Your task to perform on an android device: move a message to another label in the gmail app Image 0: 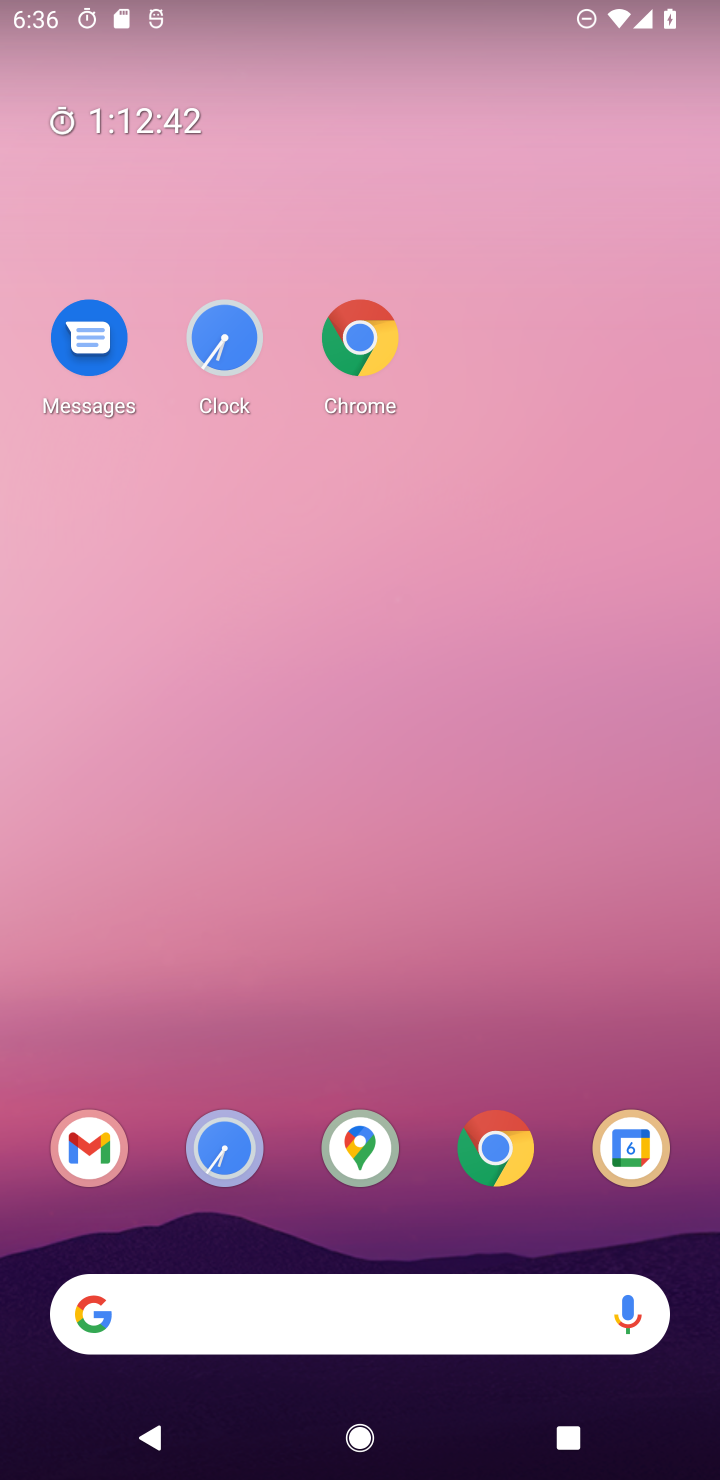
Step 0: drag from (391, 1034) to (368, 176)
Your task to perform on an android device: move a message to another label in the gmail app Image 1: 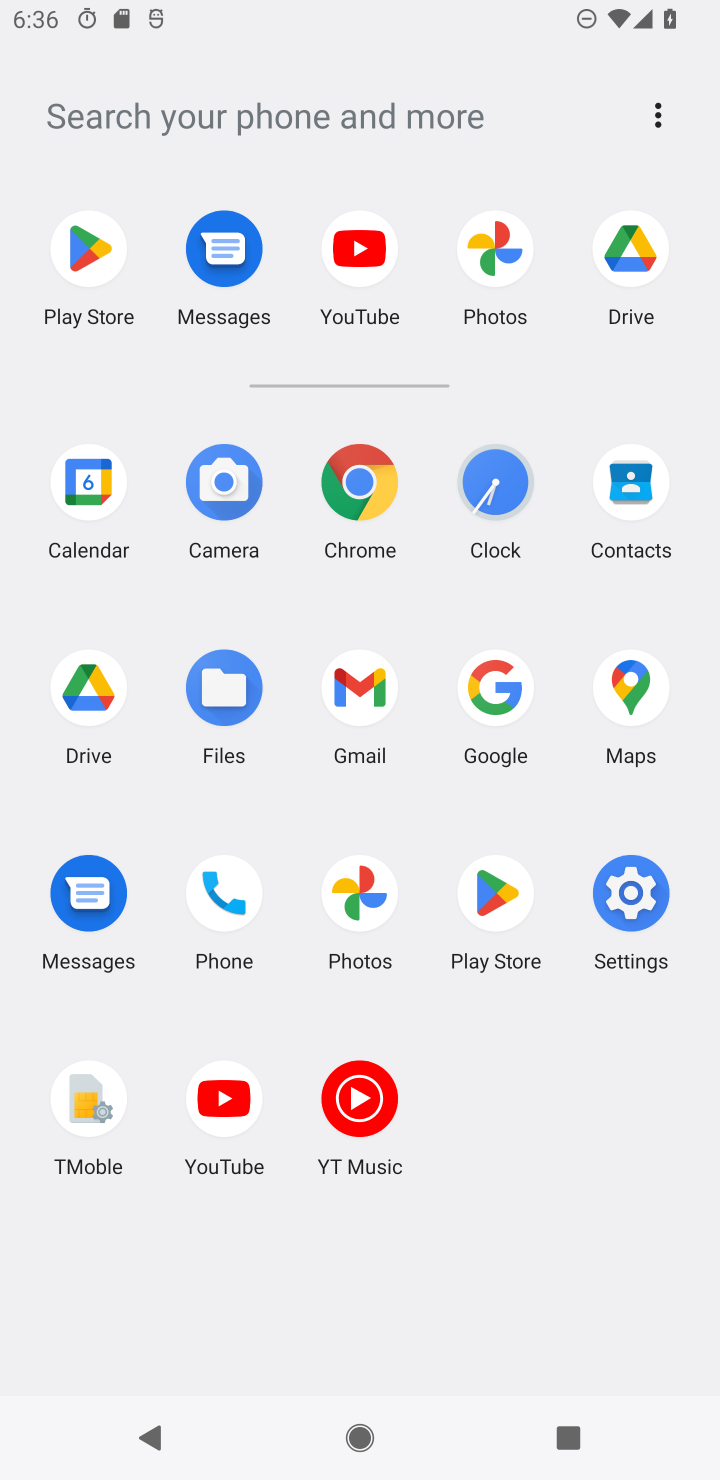
Step 1: click (354, 687)
Your task to perform on an android device: move a message to another label in the gmail app Image 2: 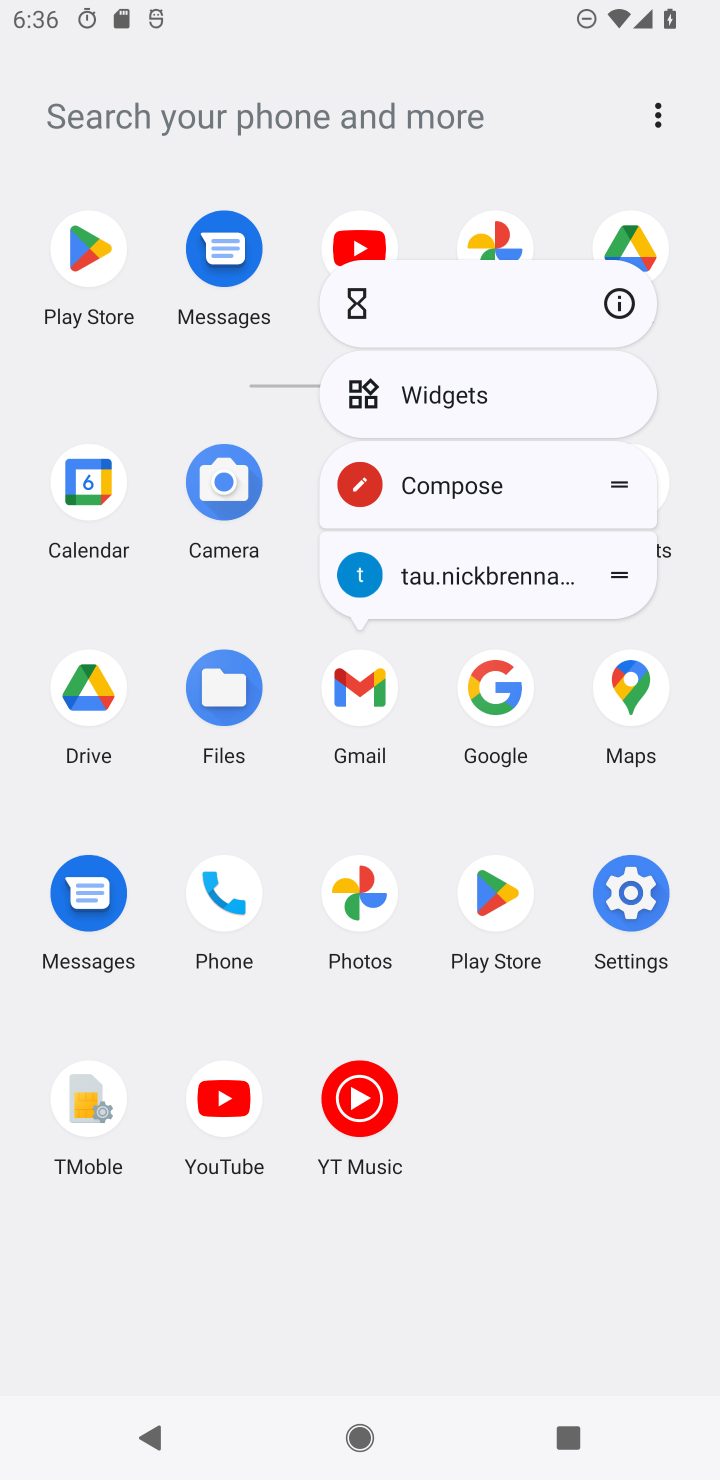
Step 2: click (632, 298)
Your task to perform on an android device: move a message to another label in the gmail app Image 3: 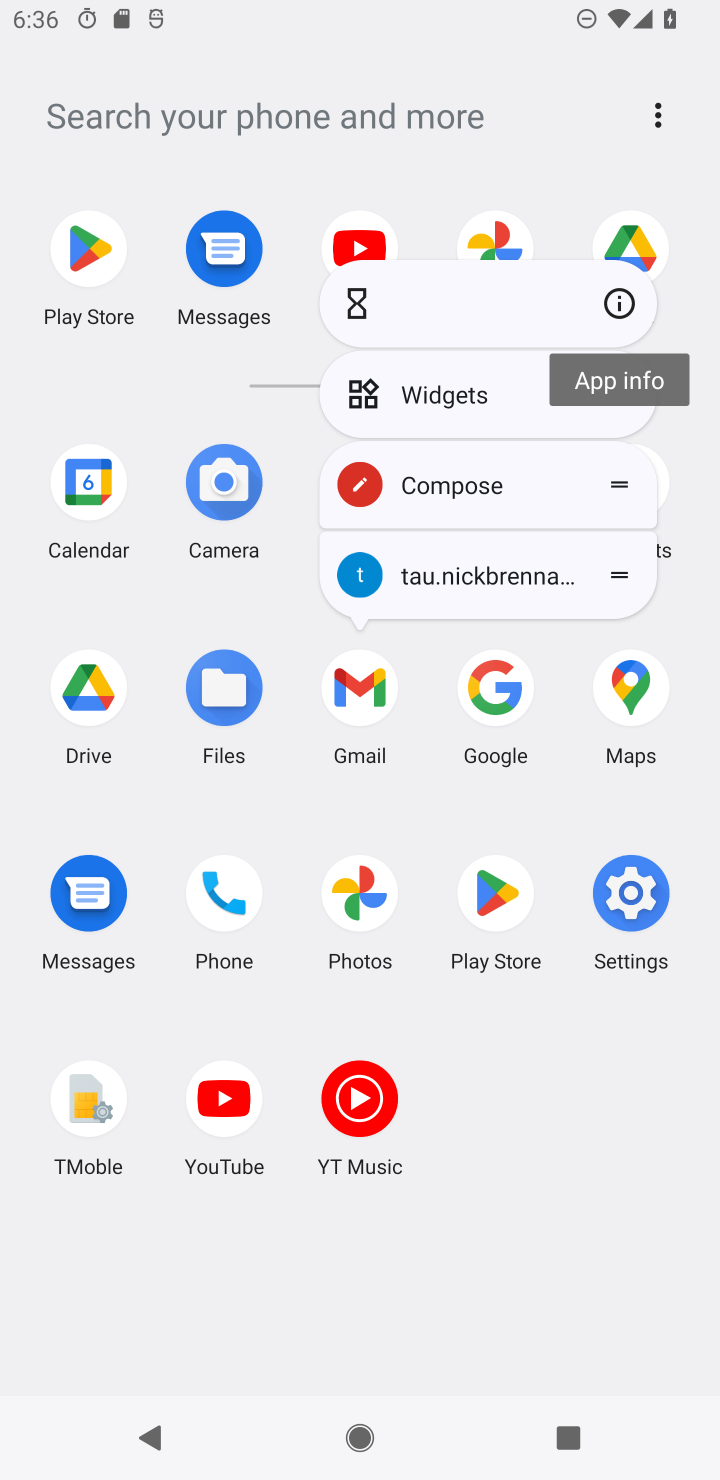
Step 3: click (623, 302)
Your task to perform on an android device: move a message to another label in the gmail app Image 4: 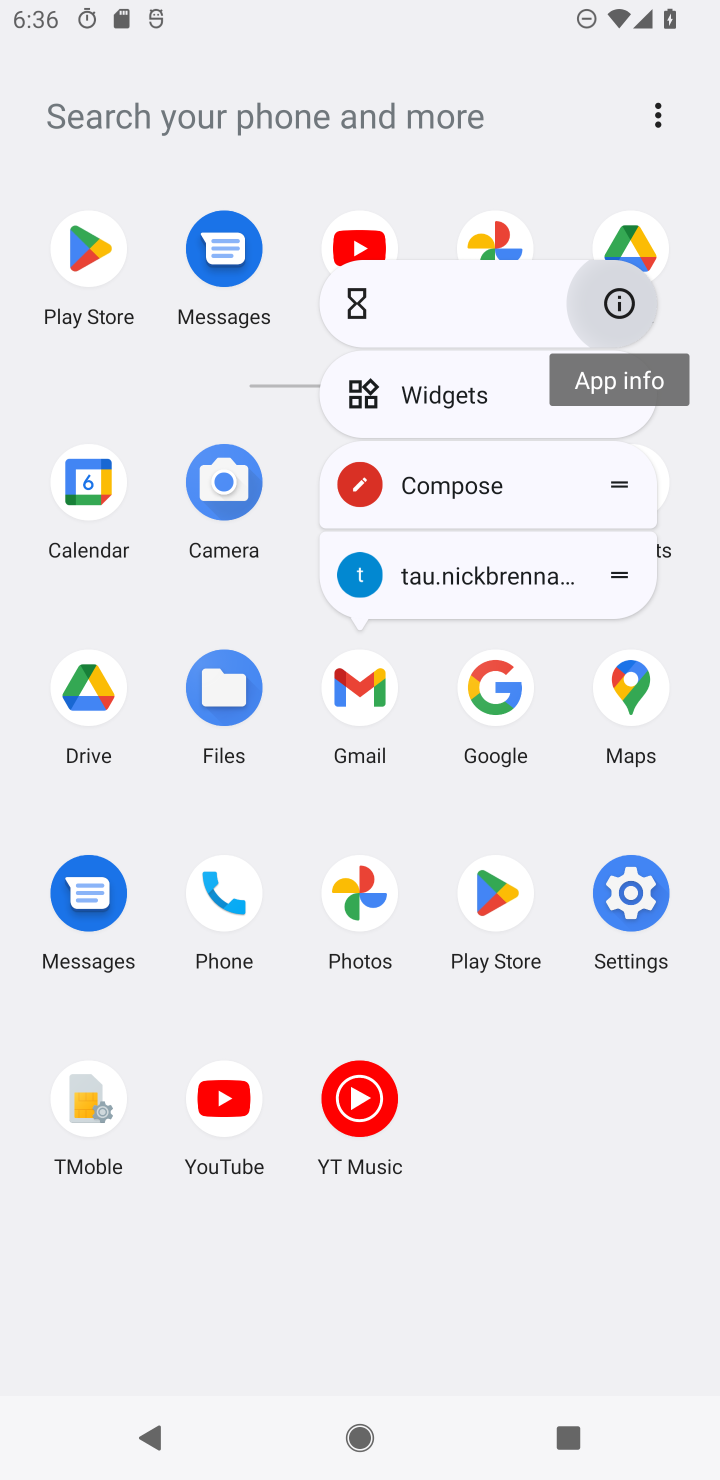
Step 4: click (611, 305)
Your task to perform on an android device: move a message to another label in the gmail app Image 5: 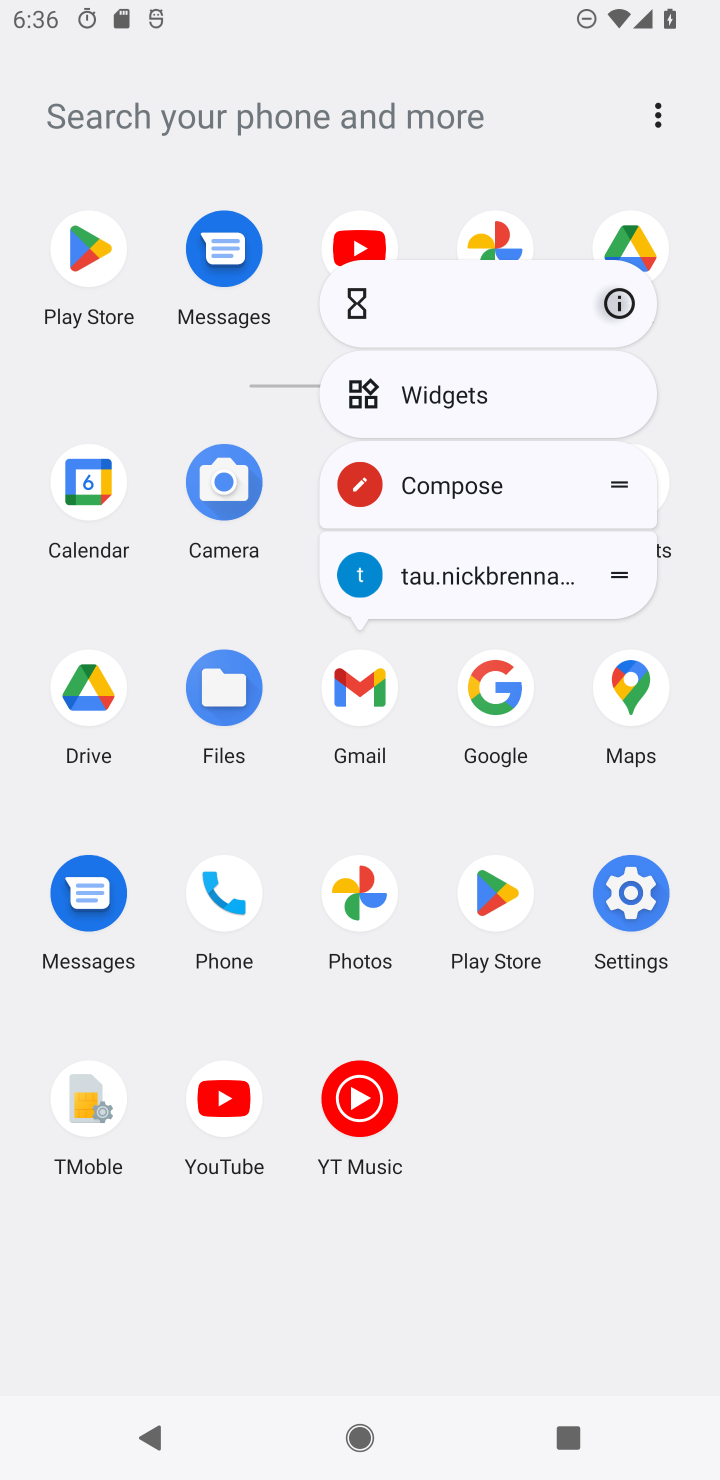
Step 5: click (611, 305)
Your task to perform on an android device: move a message to another label in the gmail app Image 6: 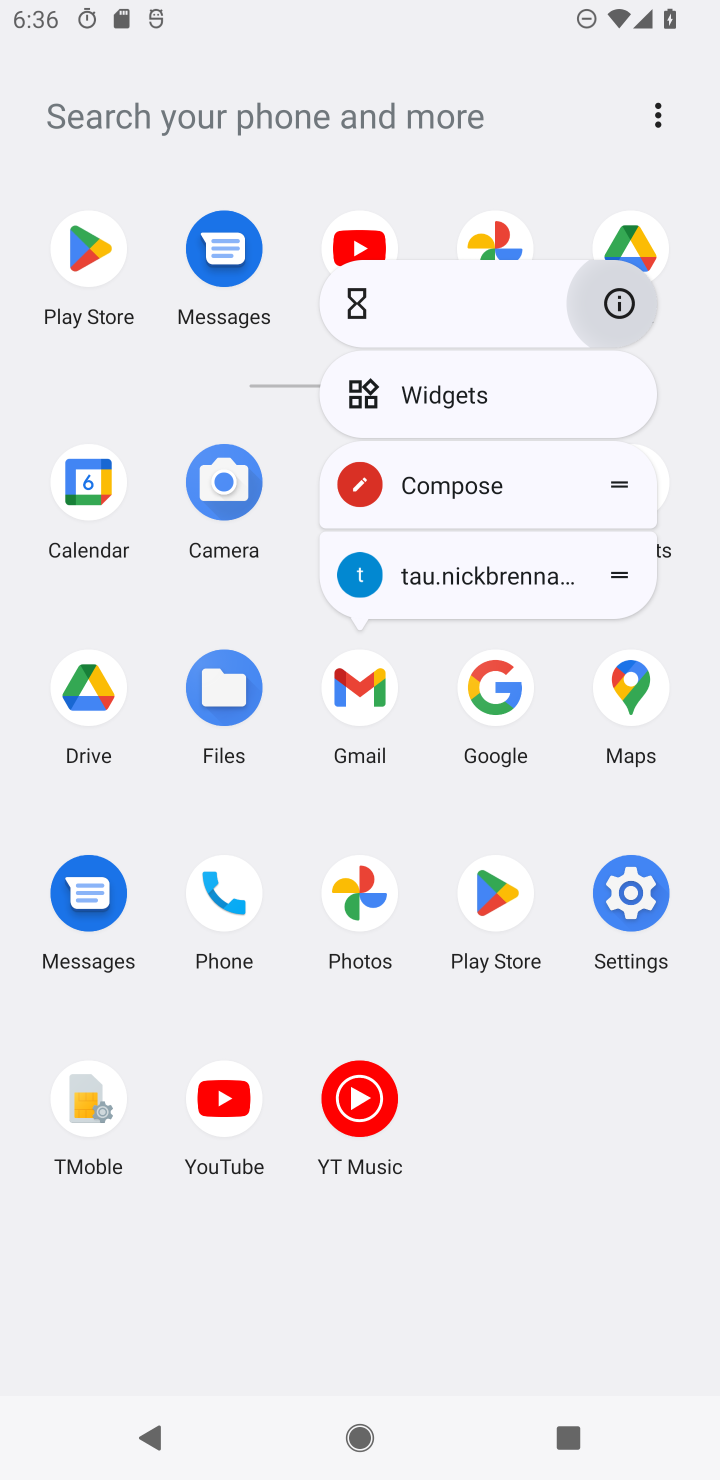
Step 6: click (611, 305)
Your task to perform on an android device: move a message to another label in the gmail app Image 7: 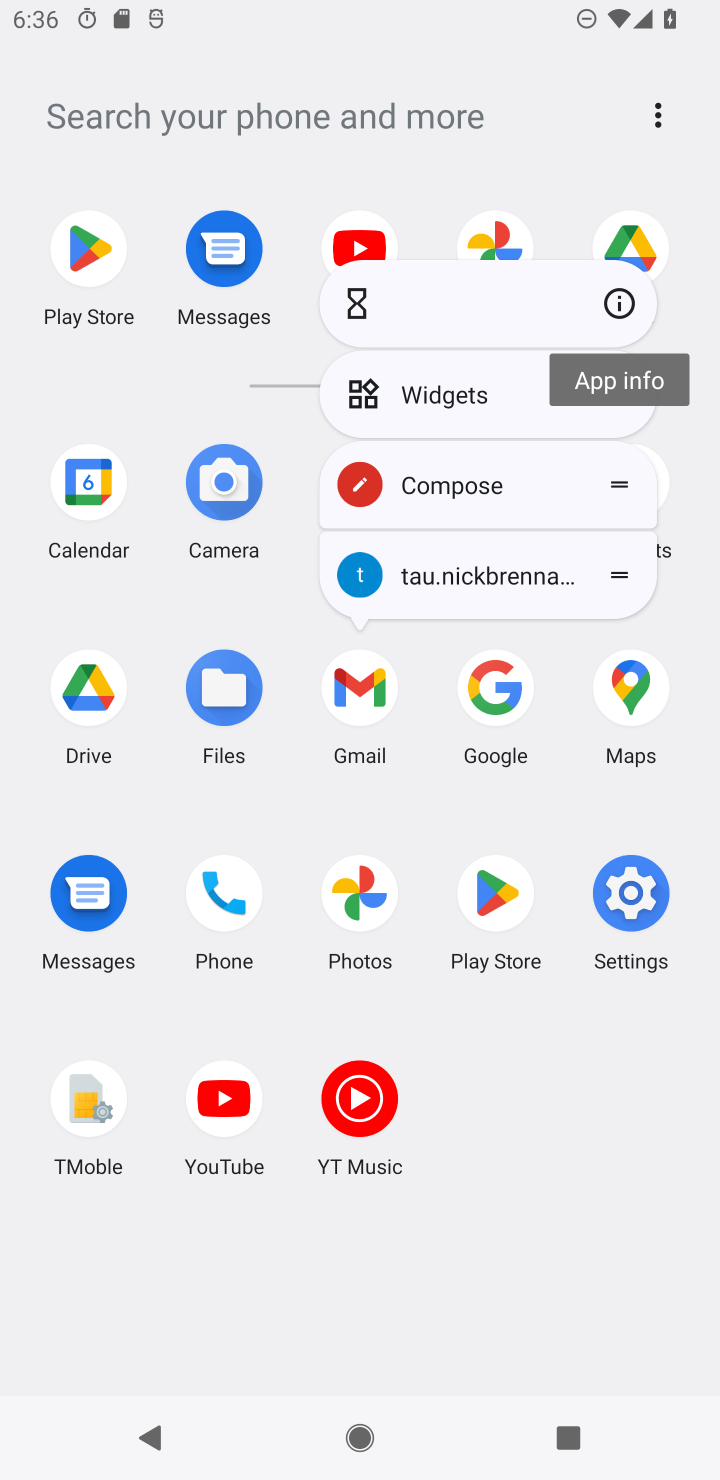
Step 7: click (339, 699)
Your task to perform on an android device: move a message to another label in the gmail app Image 8: 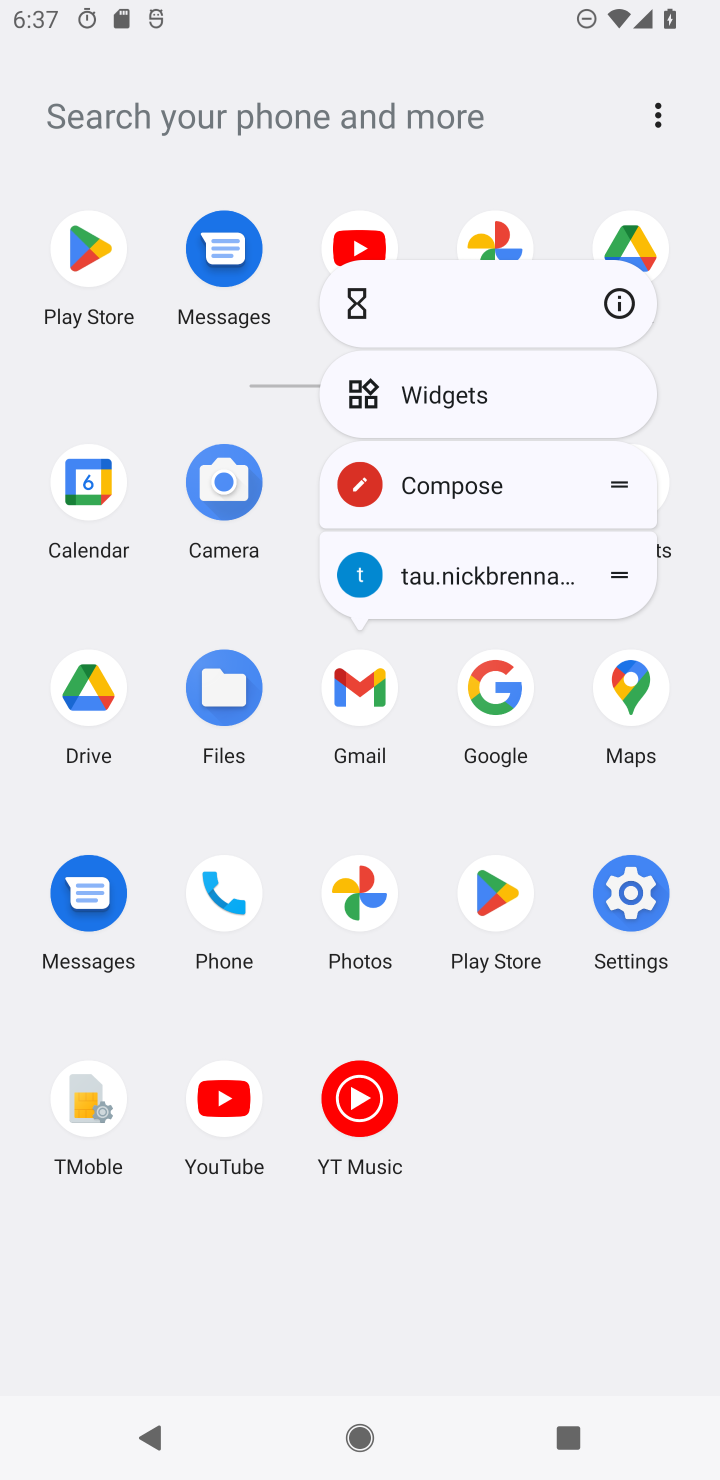
Step 8: click (346, 707)
Your task to perform on an android device: move a message to another label in the gmail app Image 9: 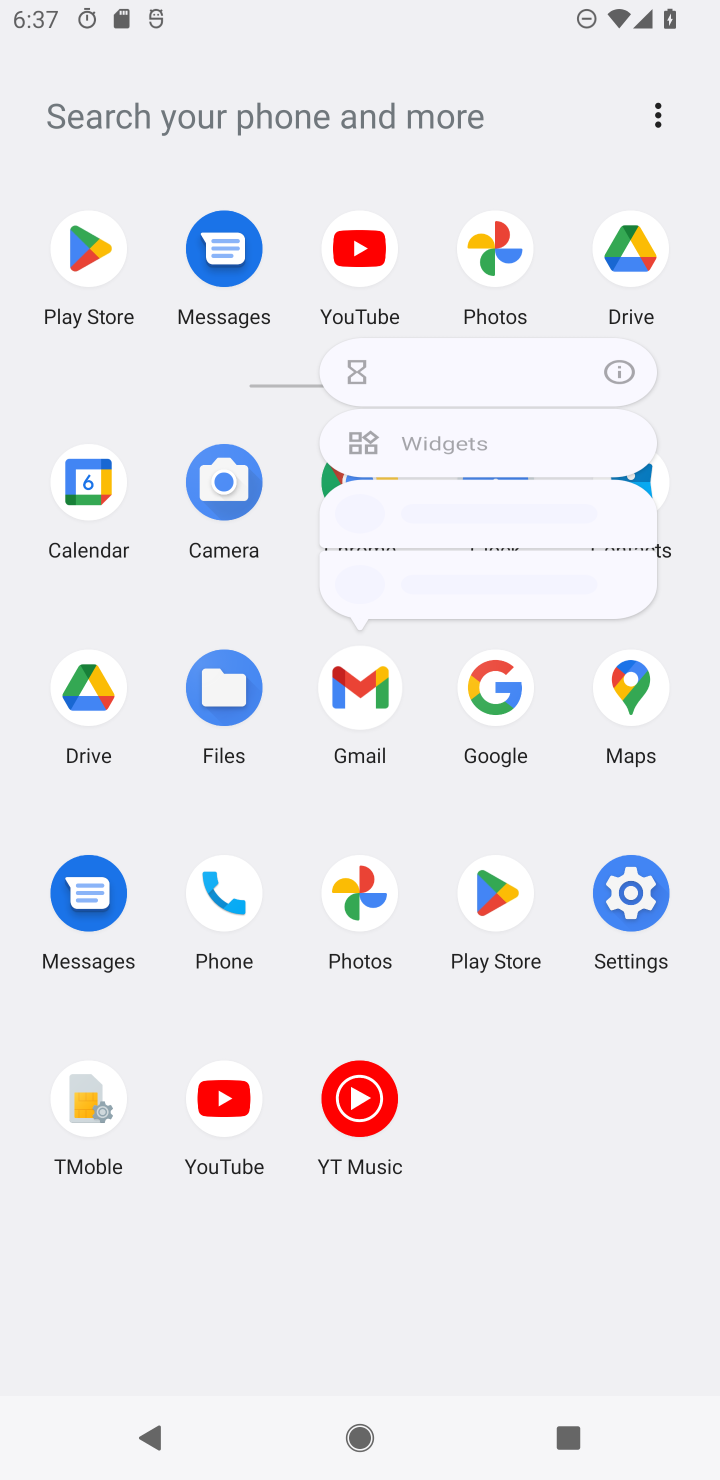
Step 9: click (338, 699)
Your task to perform on an android device: move a message to another label in the gmail app Image 10: 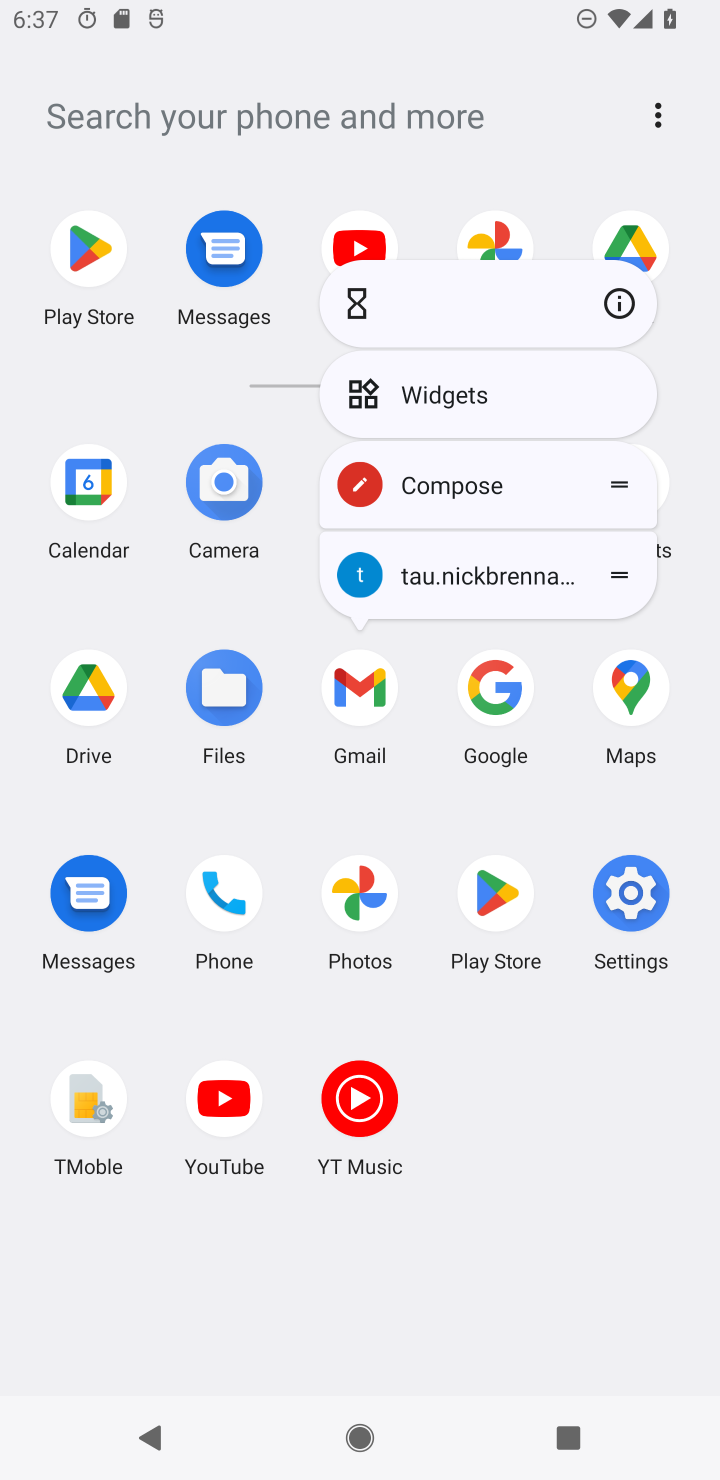
Step 10: click (631, 296)
Your task to perform on an android device: move a message to another label in the gmail app Image 11: 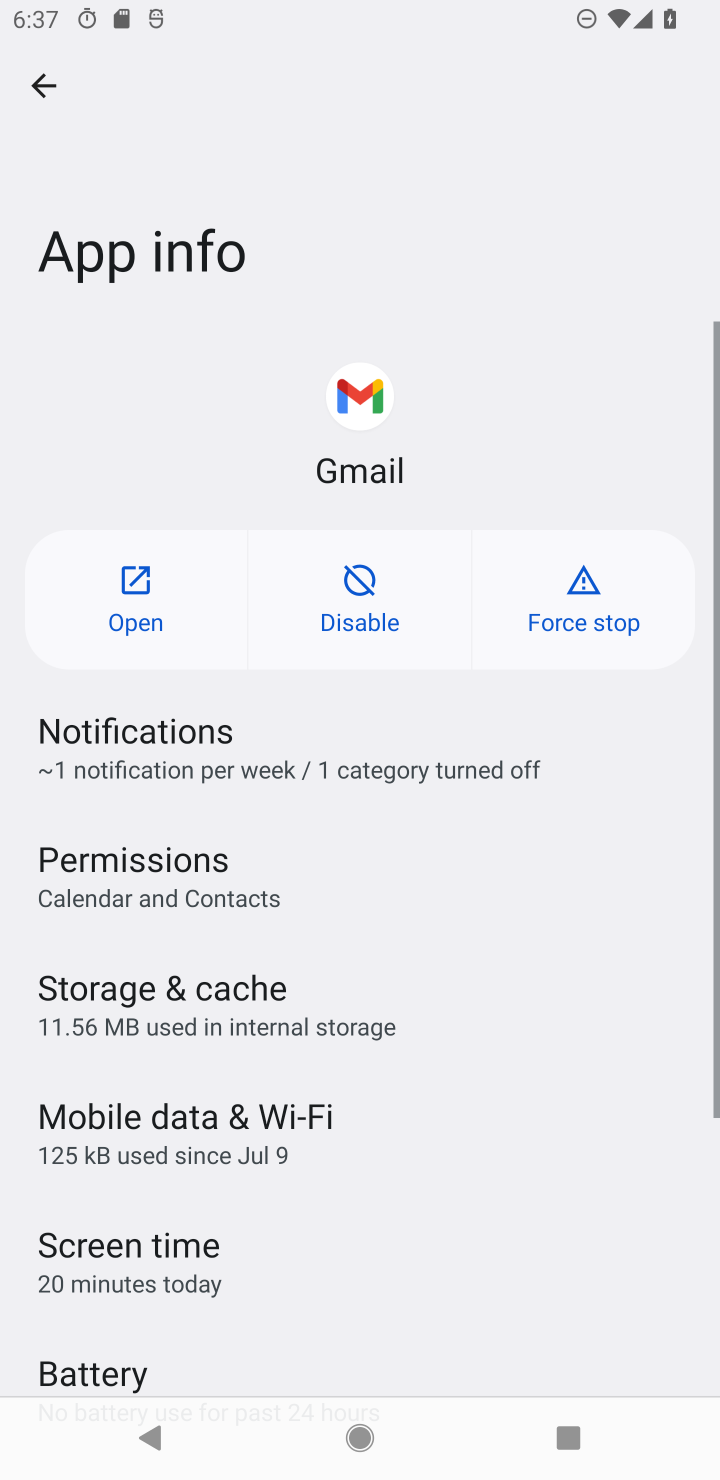
Step 11: click (124, 587)
Your task to perform on an android device: move a message to another label in the gmail app Image 12: 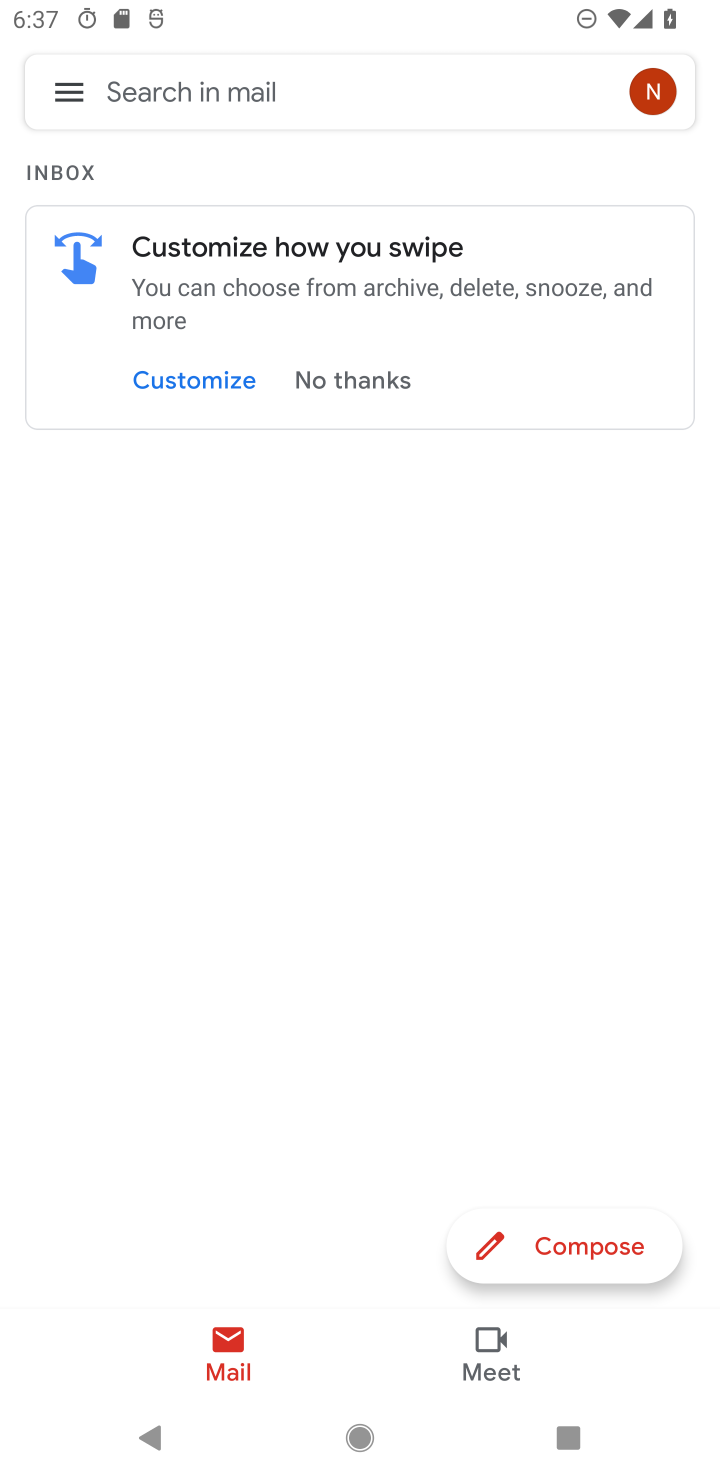
Step 12: drag from (378, 775) to (435, 400)
Your task to perform on an android device: move a message to another label in the gmail app Image 13: 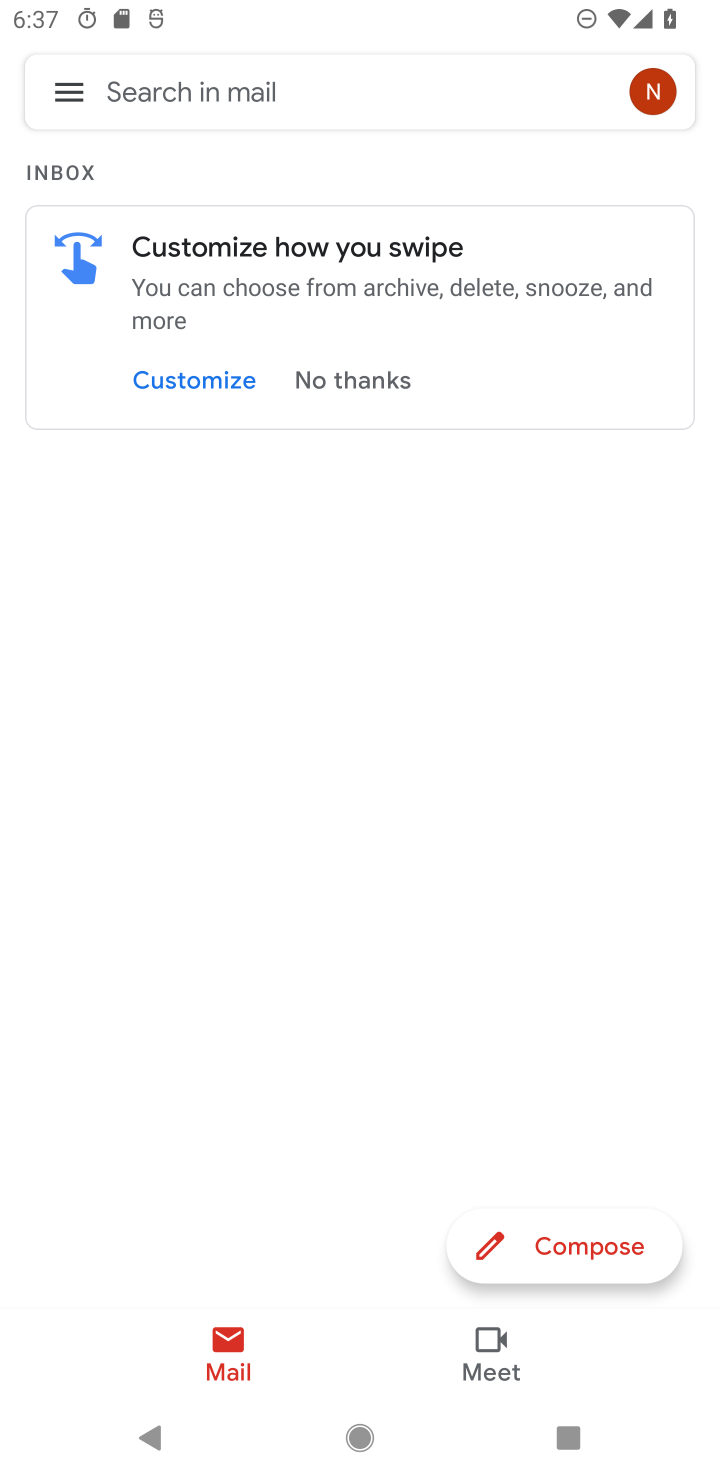
Step 13: click (64, 79)
Your task to perform on an android device: move a message to another label in the gmail app Image 14: 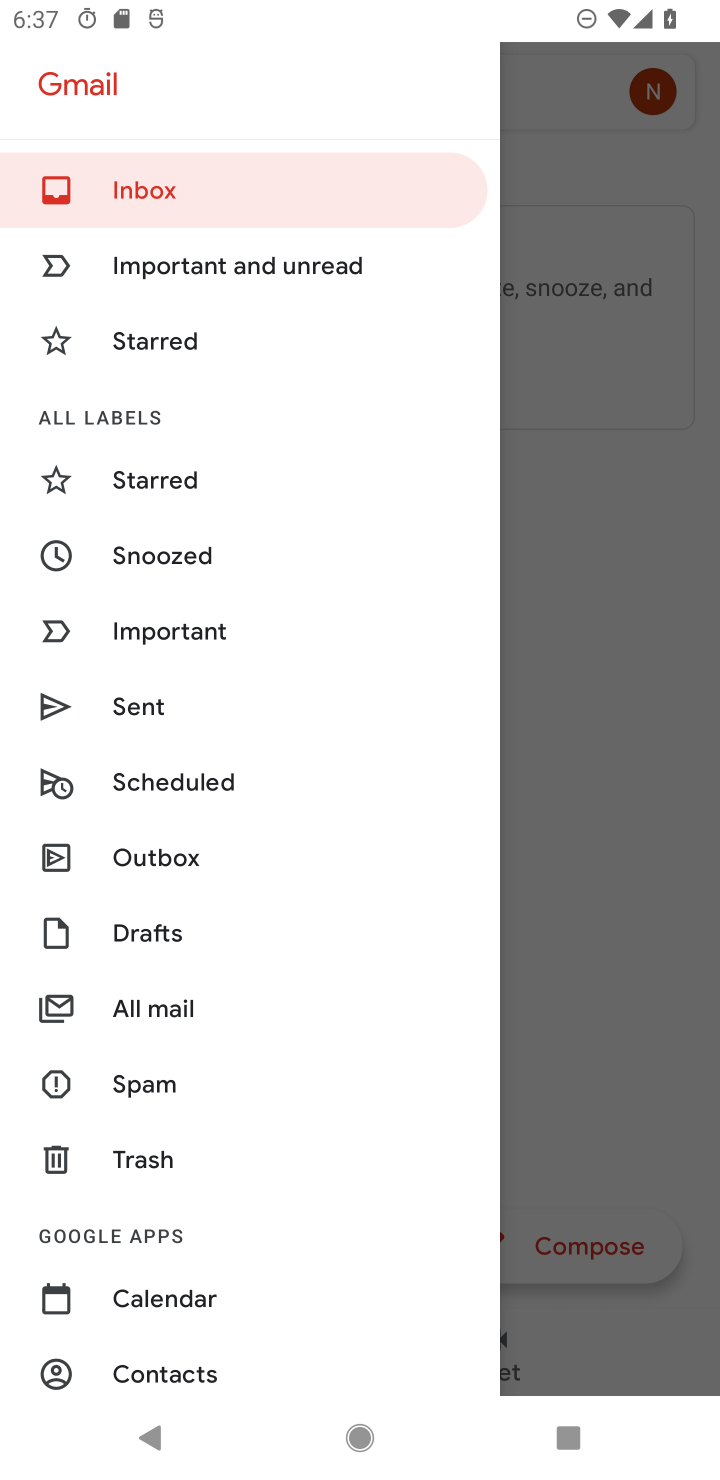
Step 14: click (185, 234)
Your task to perform on an android device: move a message to another label in the gmail app Image 15: 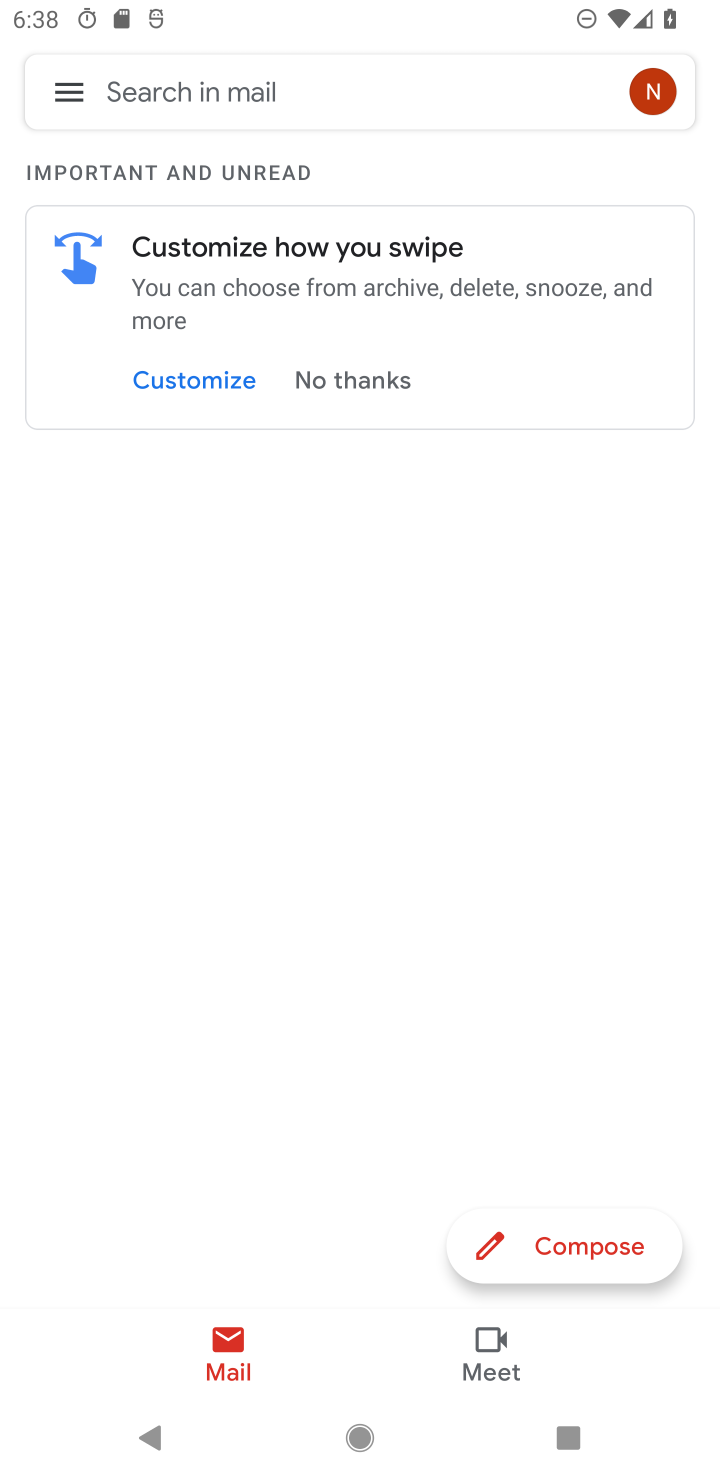
Step 15: drag from (404, 1006) to (475, 343)
Your task to perform on an android device: move a message to another label in the gmail app Image 16: 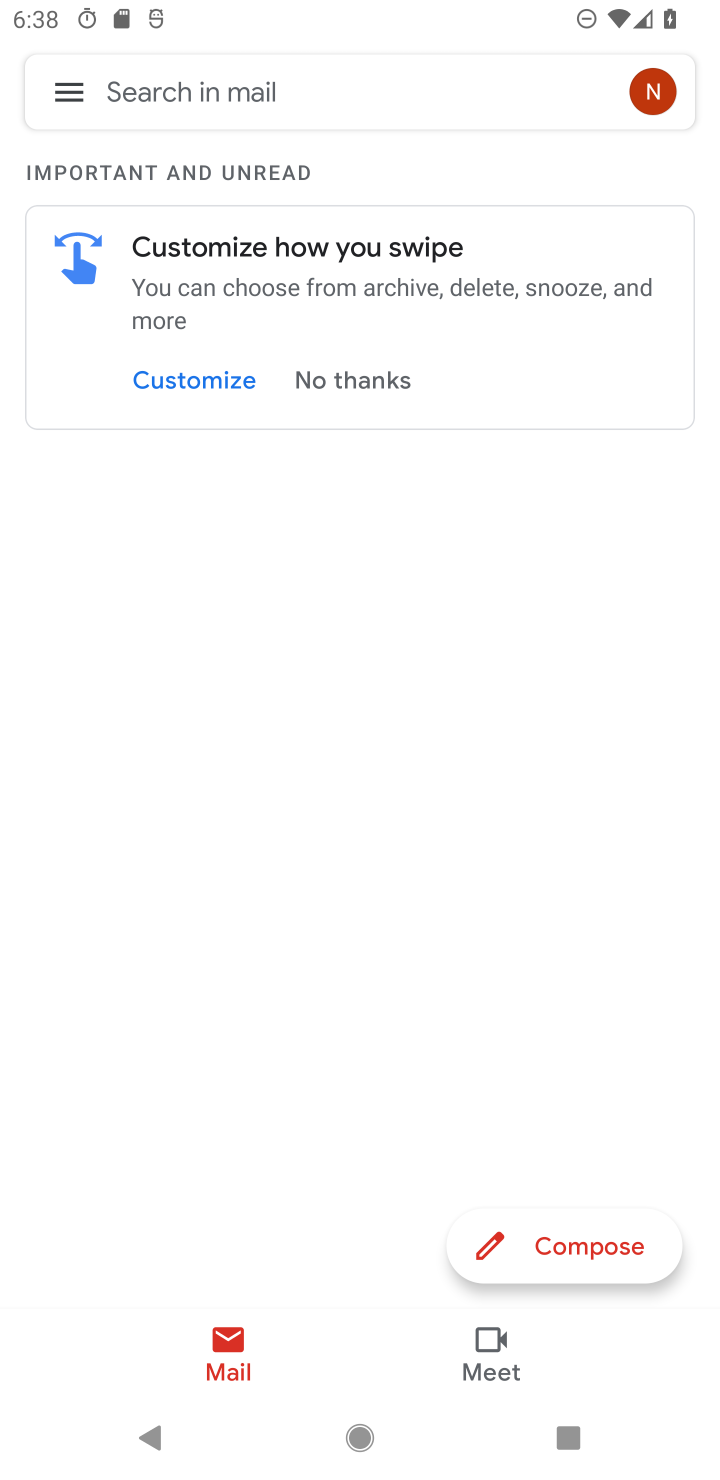
Step 16: click (341, 84)
Your task to perform on an android device: move a message to another label in the gmail app Image 17: 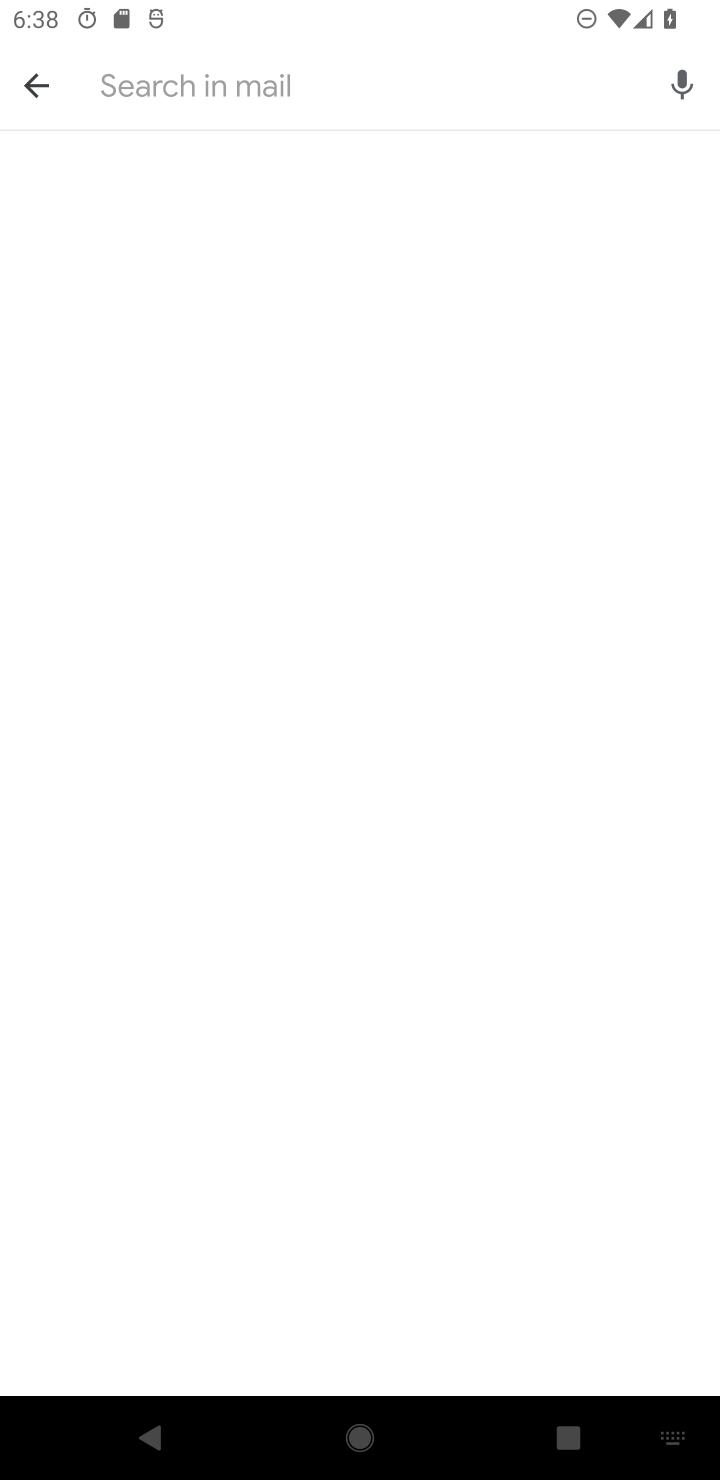
Step 17: click (411, 1222)
Your task to perform on an android device: move a message to another label in the gmail app Image 18: 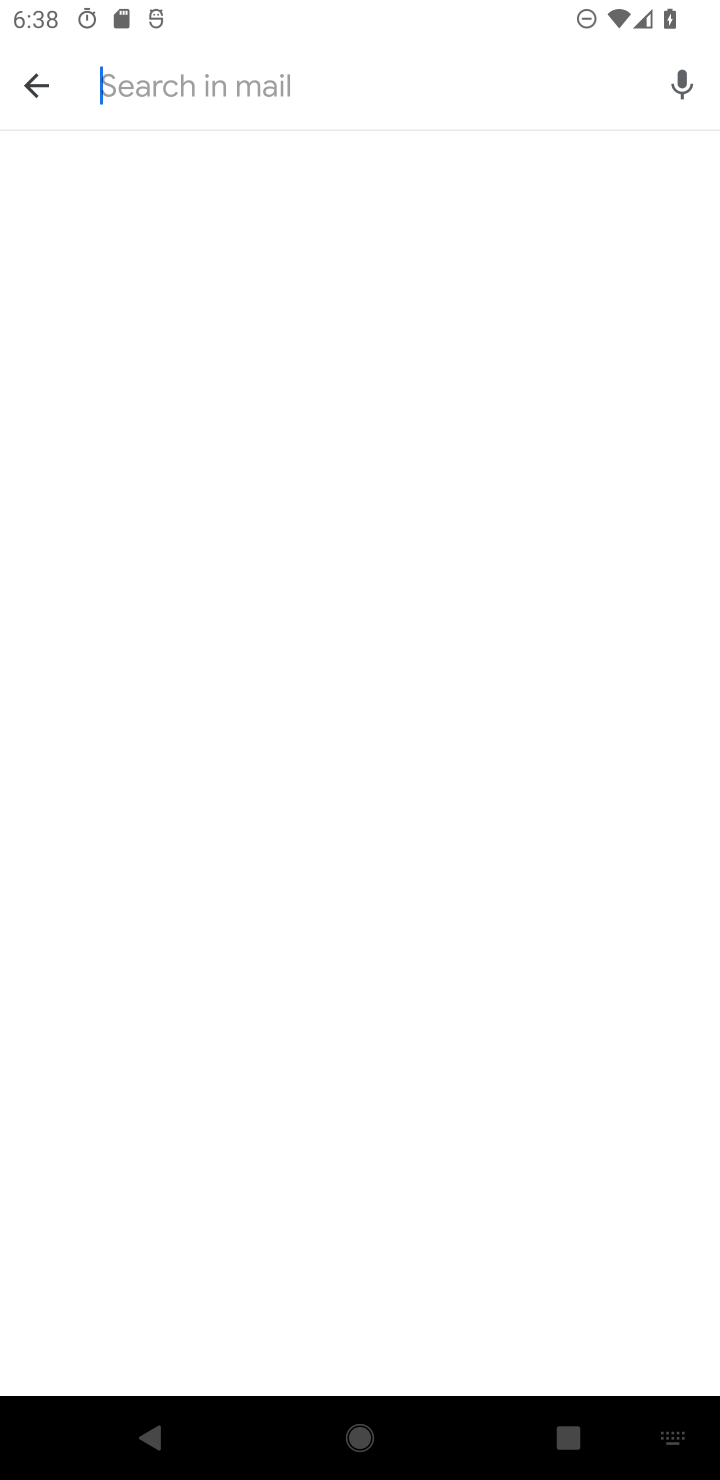
Step 18: click (28, 69)
Your task to perform on an android device: move a message to another label in the gmail app Image 19: 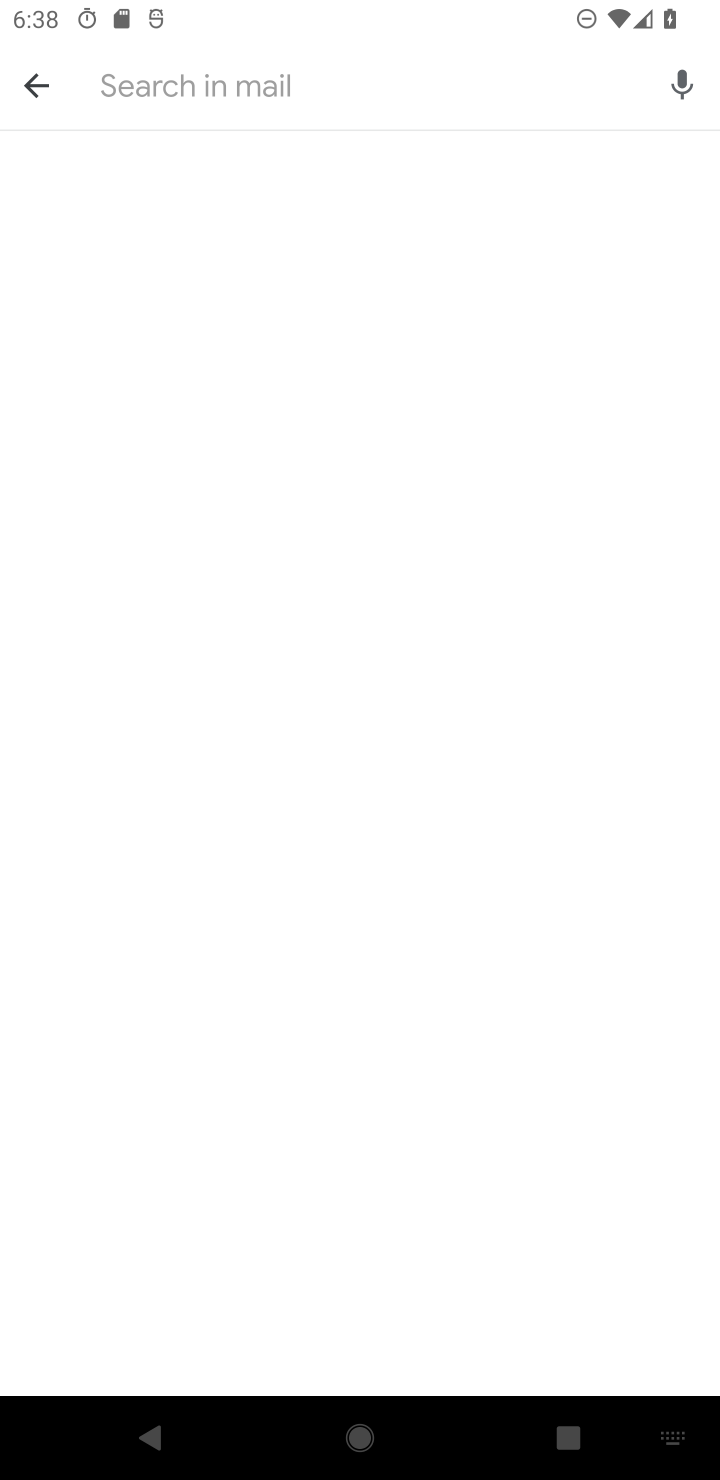
Step 19: press back button
Your task to perform on an android device: move a message to another label in the gmail app Image 20: 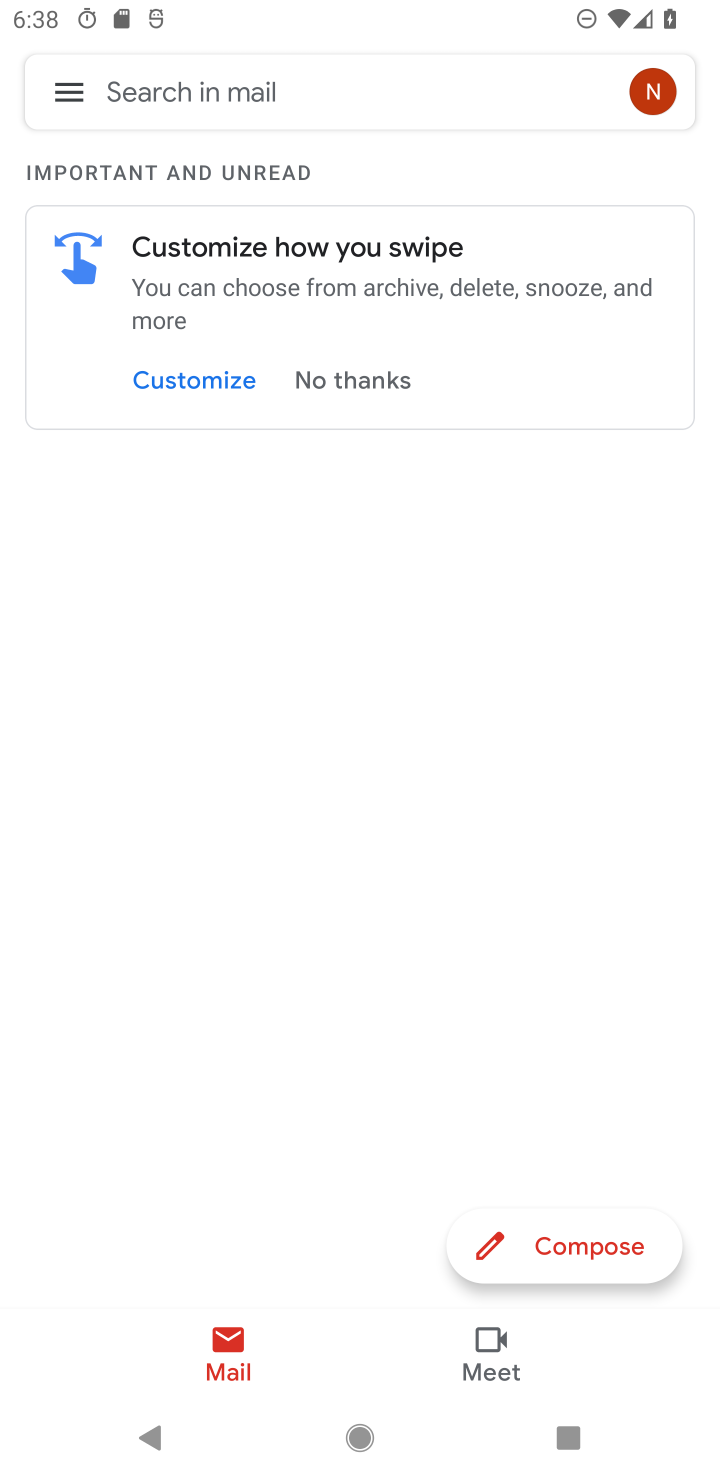
Step 20: click (60, 87)
Your task to perform on an android device: move a message to another label in the gmail app Image 21: 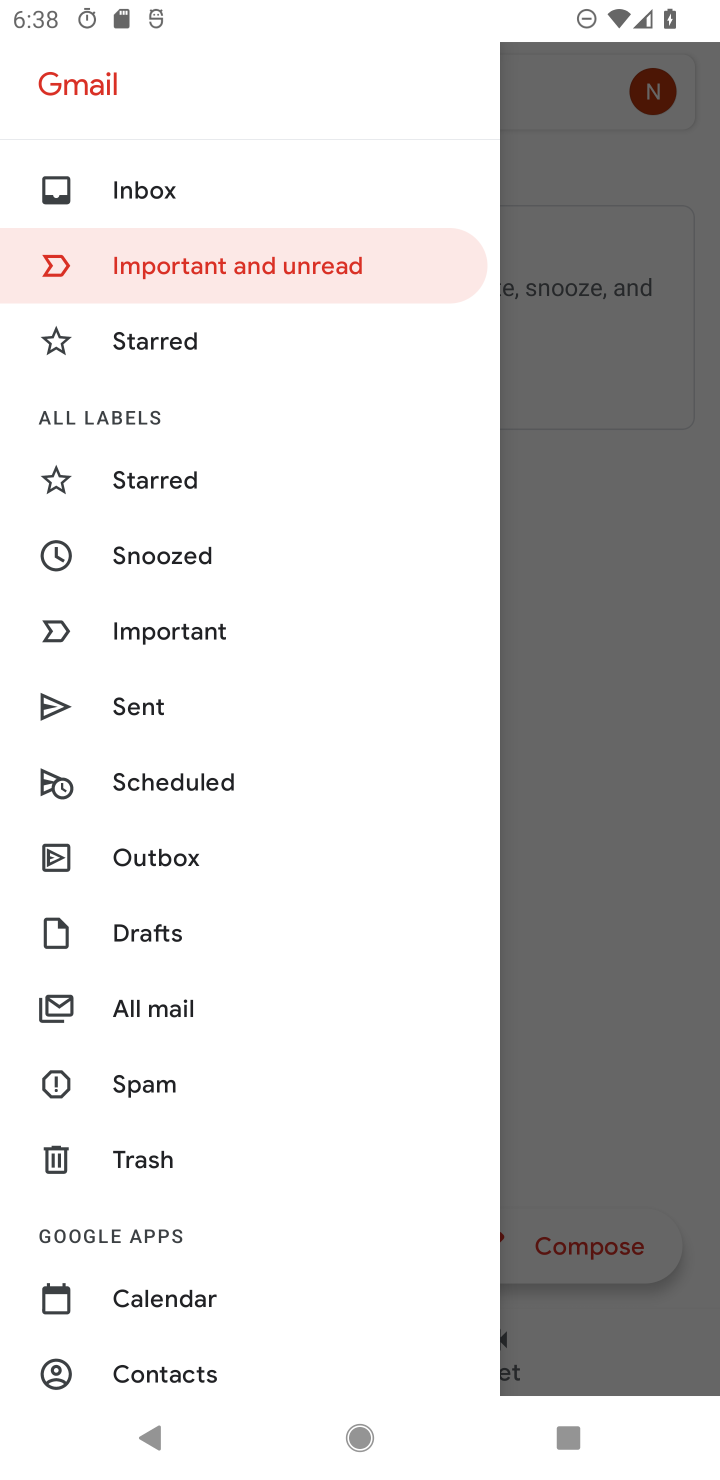
Step 21: click (154, 187)
Your task to perform on an android device: move a message to another label in the gmail app Image 22: 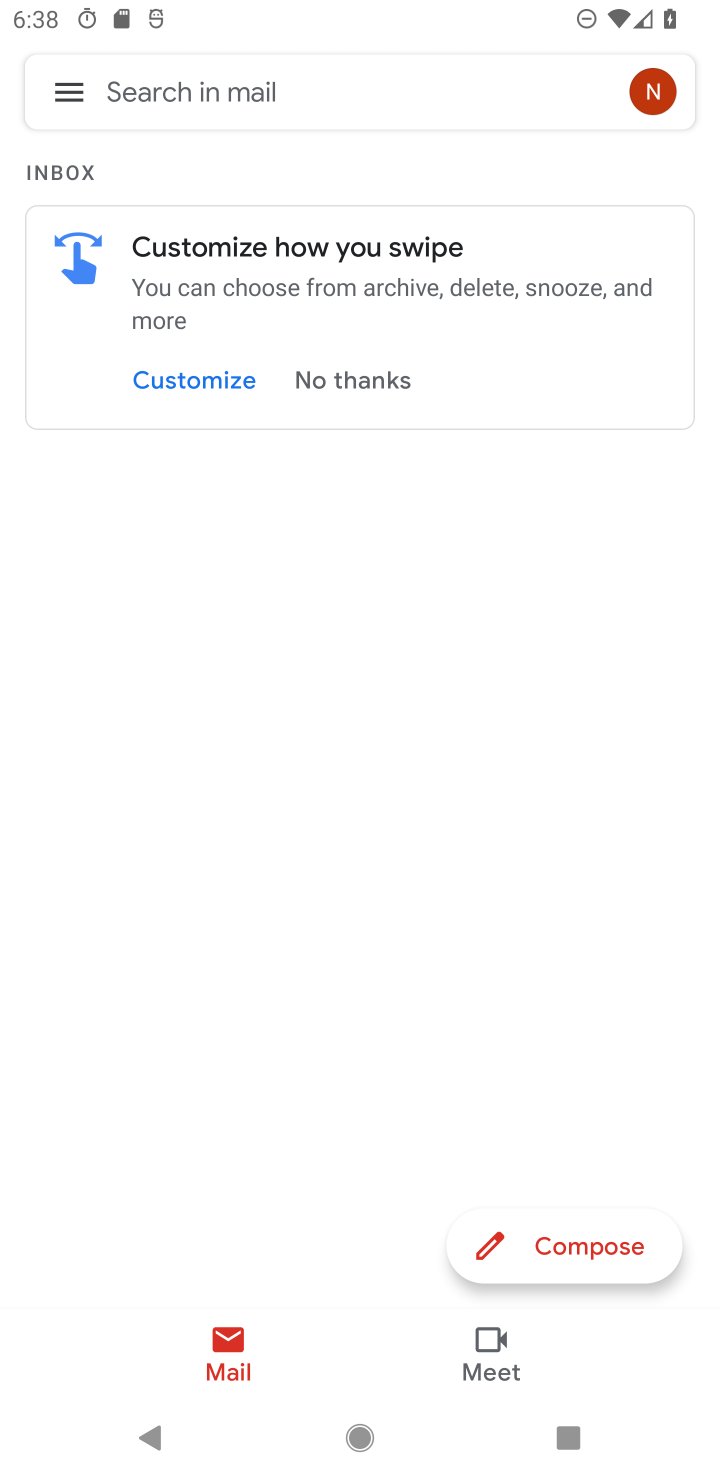
Step 22: drag from (433, 832) to (516, 263)
Your task to perform on an android device: move a message to another label in the gmail app Image 23: 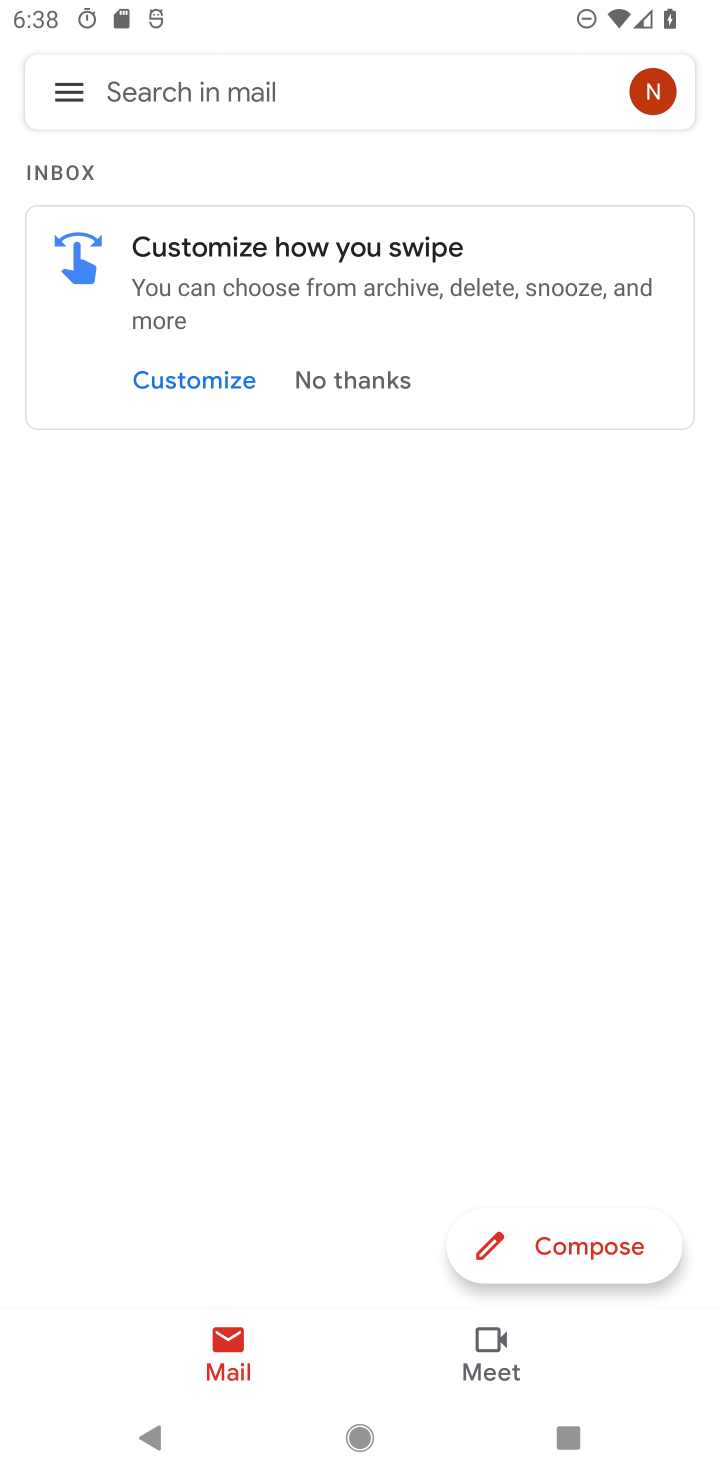
Step 23: click (337, 372)
Your task to perform on an android device: move a message to another label in the gmail app Image 24: 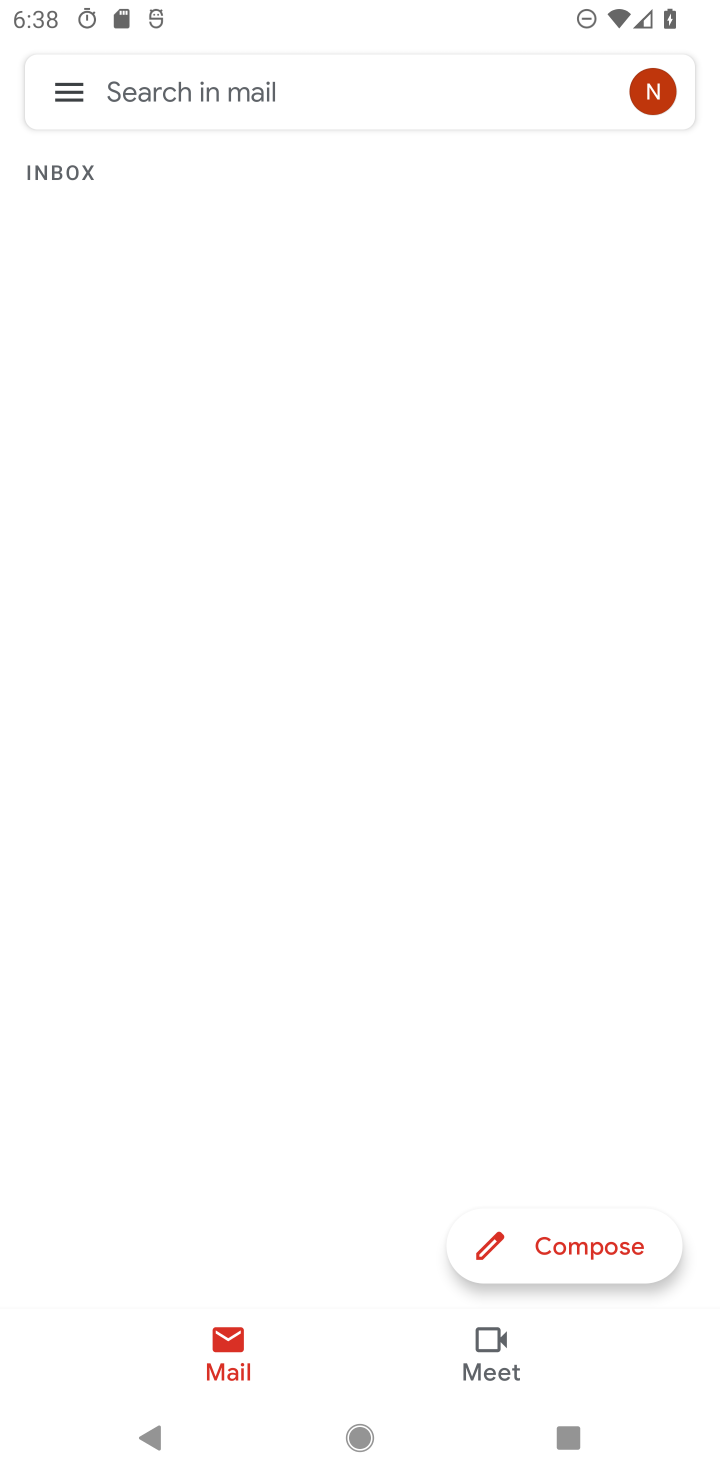
Step 24: task complete